Your task to perform on an android device: toggle location history Image 0: 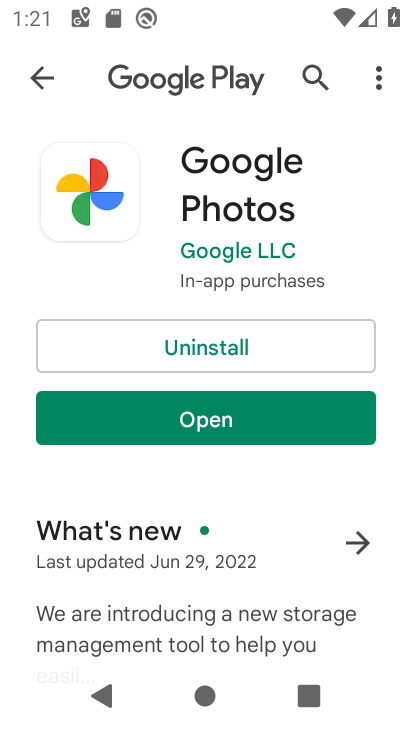
Step 0: press home button
Your task to perform on an android device: toggle location history Image 1: 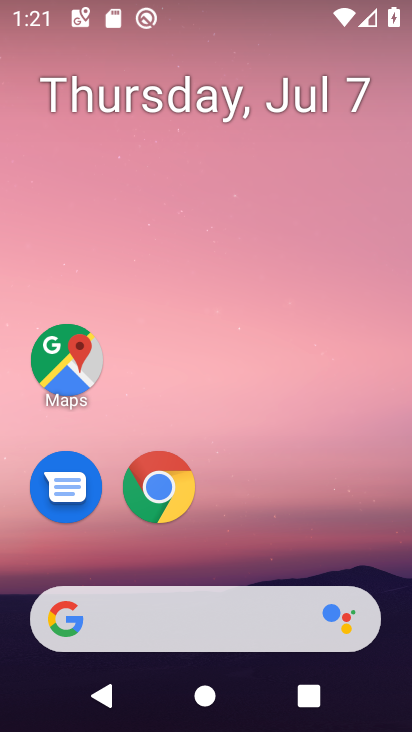
Step 1: drag from (342, 536) to (349, 64)
Your task to perform on an android device: toggle location history Image 2: 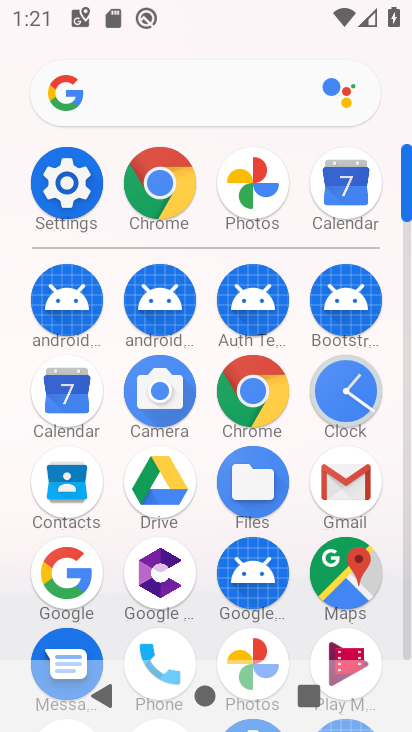
Step 2: click (84, 201)
Your task to perform on an android device: toggle location history Image 3: 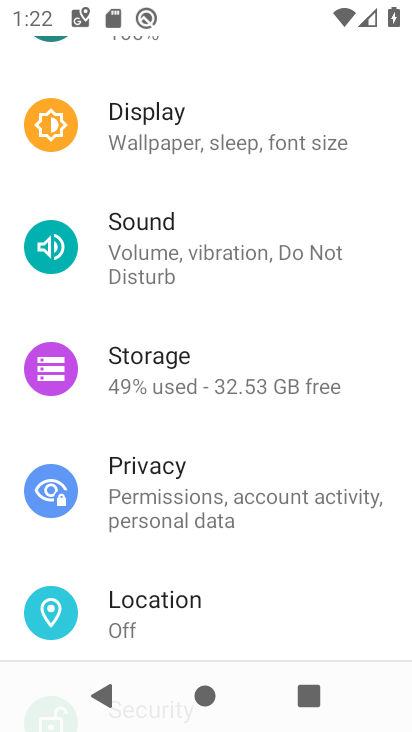
Step 3: drag from (368, 290) to (374, 454)
Your task to perform on an android device: toggle location history Image 4: 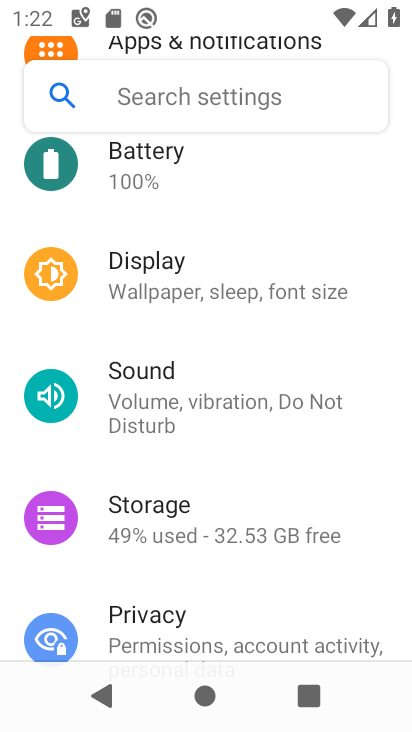
Step 4: drag from (367, 212) to (364, 406)
Your task to perform on an android device: toggle location history Image 5: 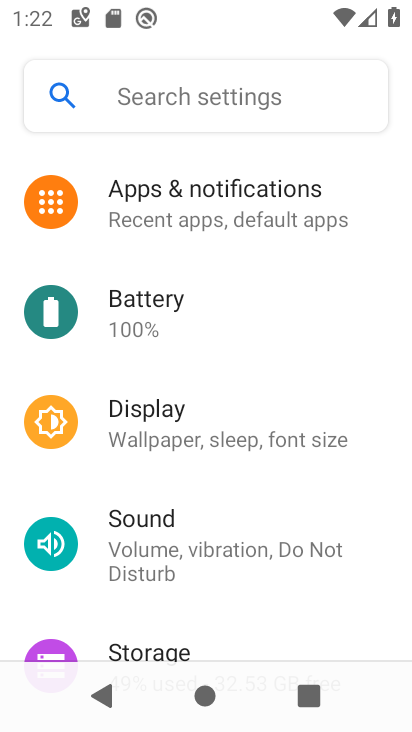
Step 5: drag from (364, 202) to (371, 414)
Your task to perform on an android device: toggle location history Image 6: 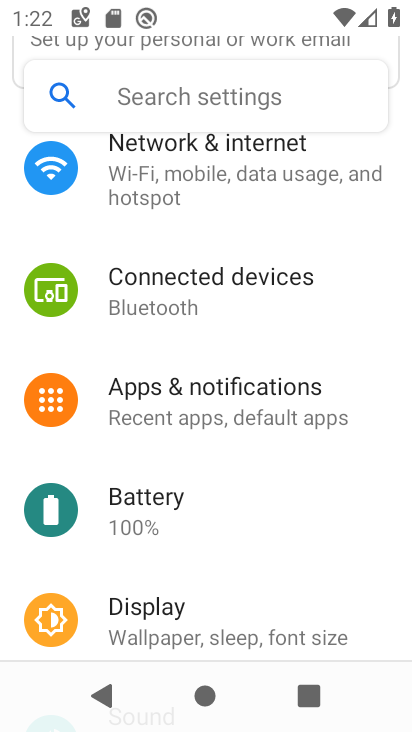
Step 6: drag from (370, 266) to (371, 478)
Your task to perform on an android device: toggle location history Image 7: 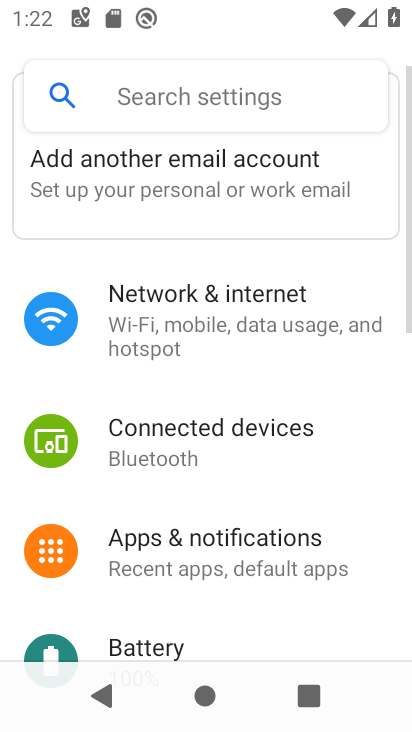
Step 7: drag from (365, 484) to (362, 346)
Your task to perform on an android device: toggle location history Image 8: 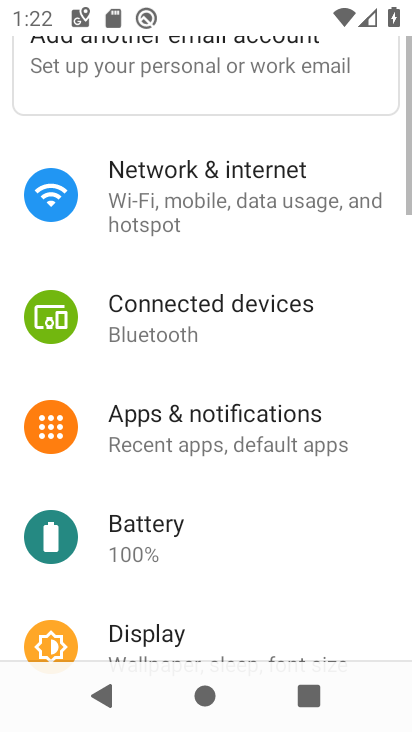
Step 8: drag from (360, 531) to (362, 341)
Your task to perform on an android device: toggle location history Image 9: 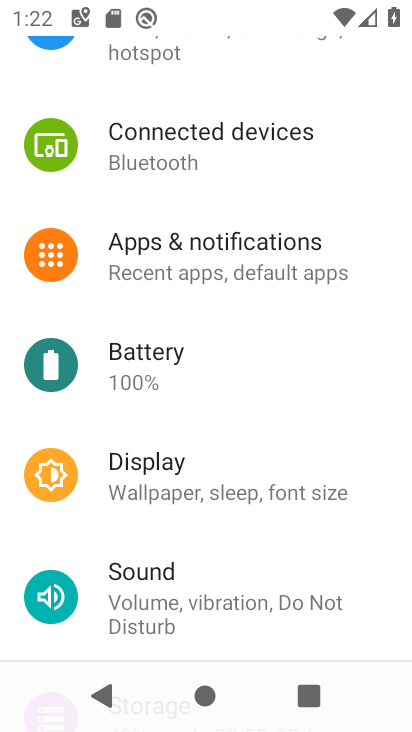
Step 9: drag from (351, 574) to (362, 387)
Your task to perform on an android device: toggle location history Image 10: 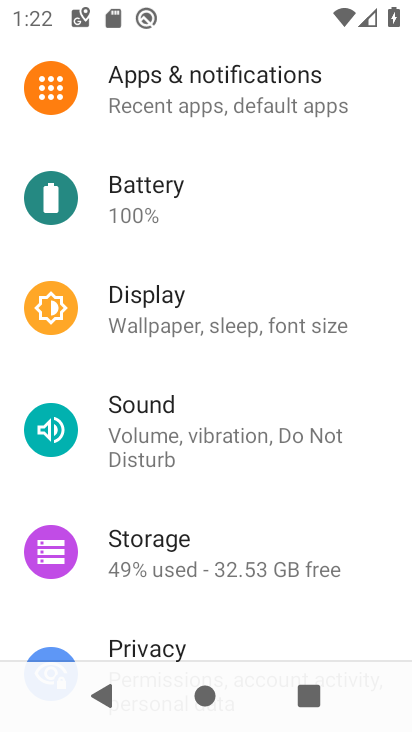
Step 10: drag from (364, 556) to (364, 359)
Your task to perform on an android device: toggle location history Image 11: 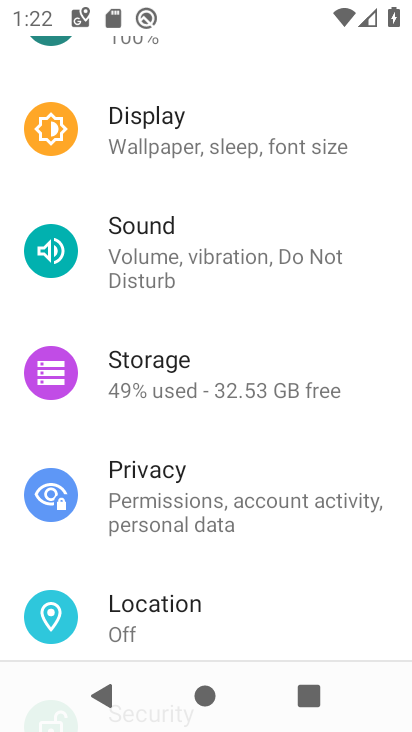
Step 11: drag from (356, 575) to (372, 424)
Your task to perform on an android device: toggle location history Image 12: 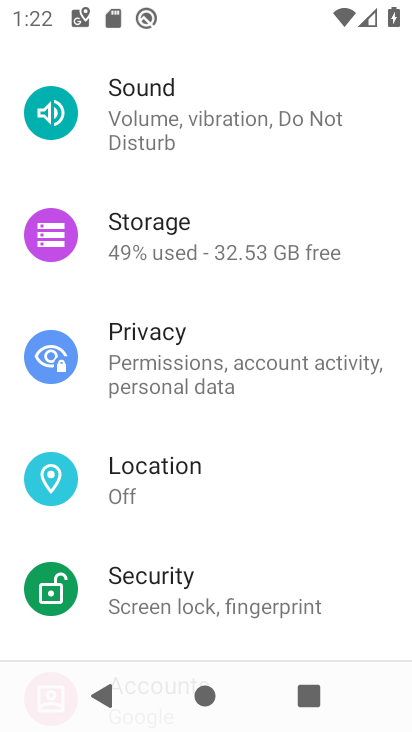
Step 12: click (178, 493)
Your task to perform on an android device: toggle location history Image 13: 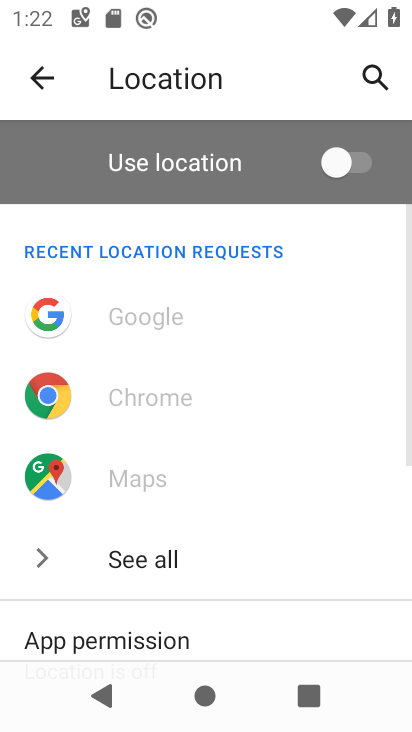
Step 13: drag from (330, 570) to (320, 342)
Your task to perform on an android device: toggle location history Image 14: 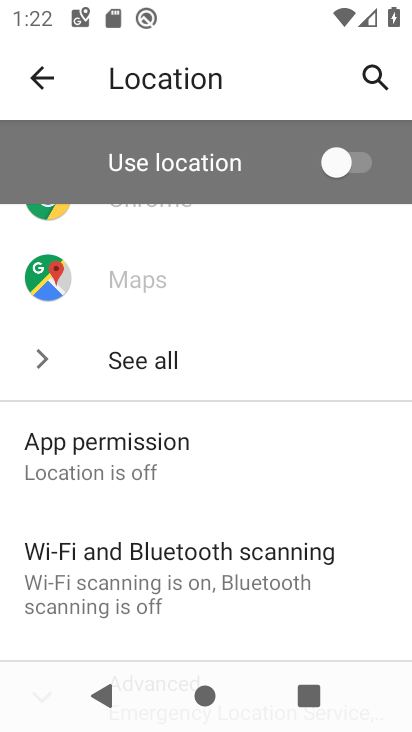
Step 14: drag from (347, 611) to (360, 376)
Your task to perform on an android device: toggle location history Image 15: 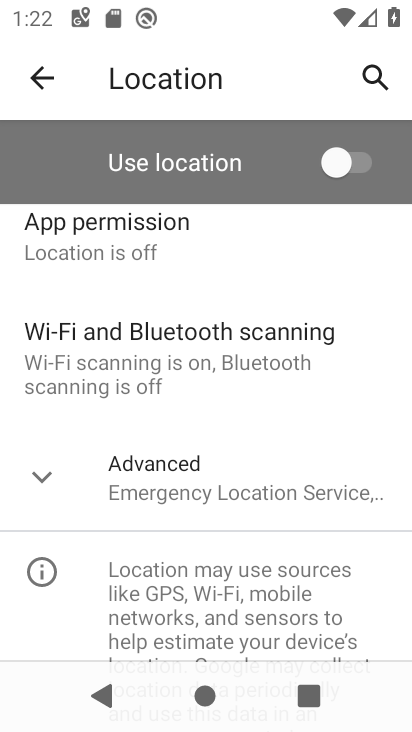
Step 15: drag from (381, 619) to (374, 445)
Your task to perform on an android device: toggle location history Image 16: 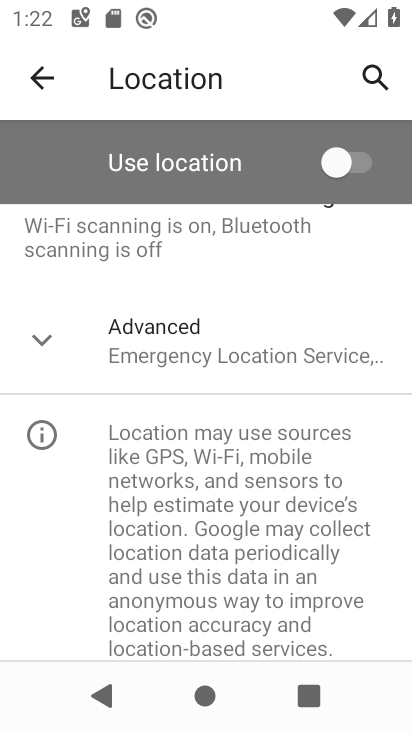
Step 16: click (246, 347)
Your task to perform on an android device: toggle location history Image 17: 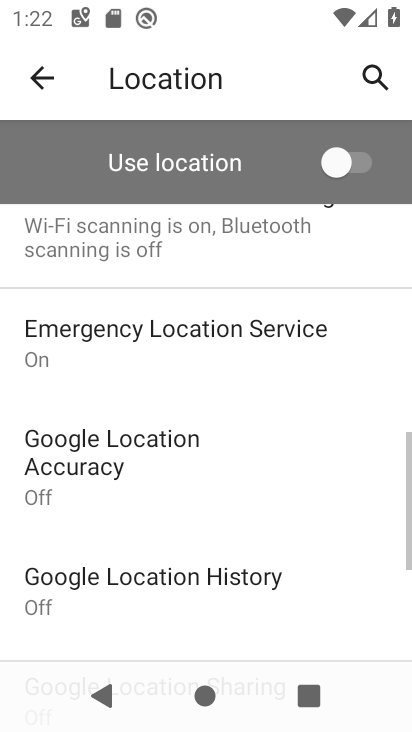
Step 17: drag from (343, 536) to (343, 341)
Your task to perform on an android device: toggle location history Image 18: 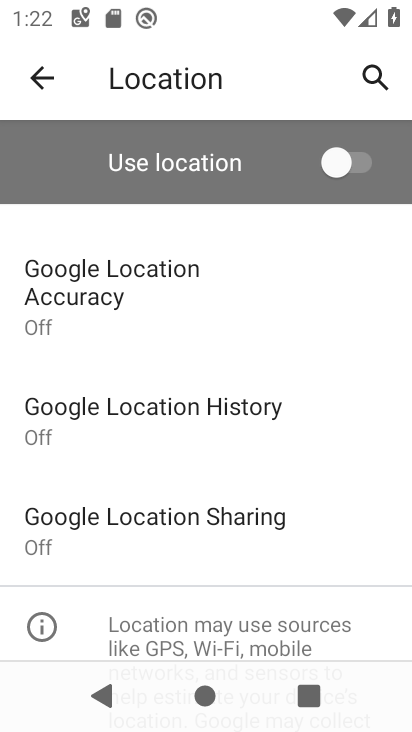
Step 18: click (218, 427)
Your task to perform on an android device: toggle location history Image 19: 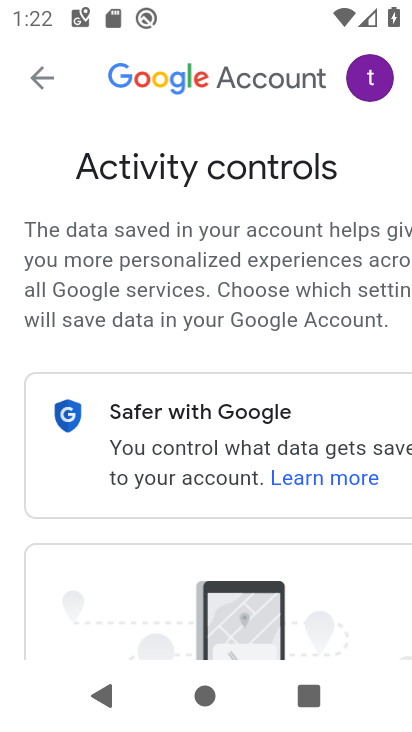
Step 19: drag from (306, 533) to (305, 331)
Your task to perform on an android device: toggle location history Image 20: 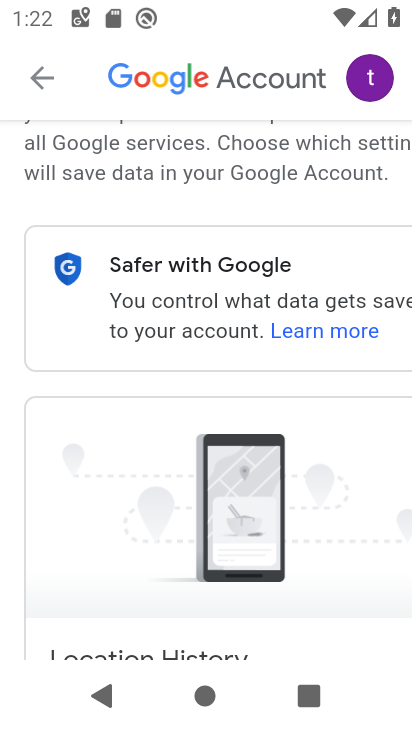
Step 20: drag from (343, 590) to (348, 336)
Your task to perform on an android device: toggle location history Image 21: 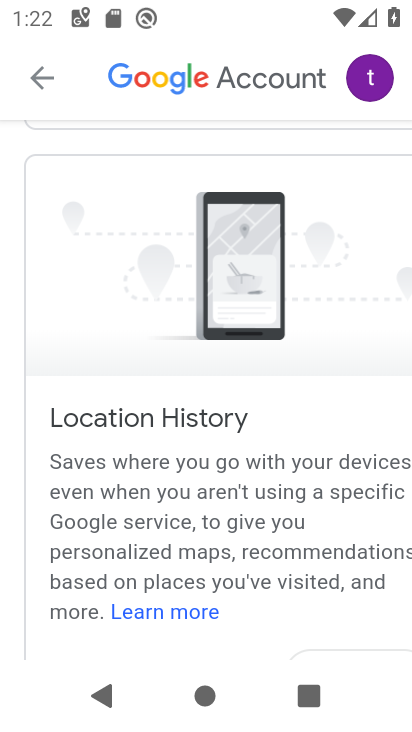
Step 21: drag from (323, 596) to (318, 285)
Your task to perform on an android device: toggle location history Image 22: 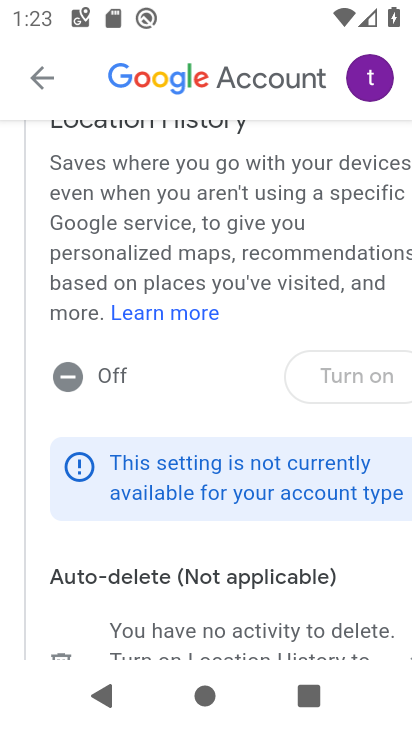
Step 22: click (352, 373)
Your task to perform on an android device: toggle location history Image 23: 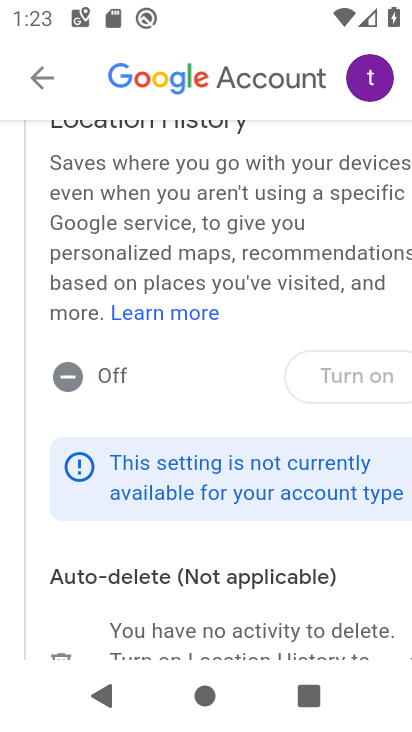
Step 23: task complete